Your task to perform on an android device: Open ESPN.com Image 0: 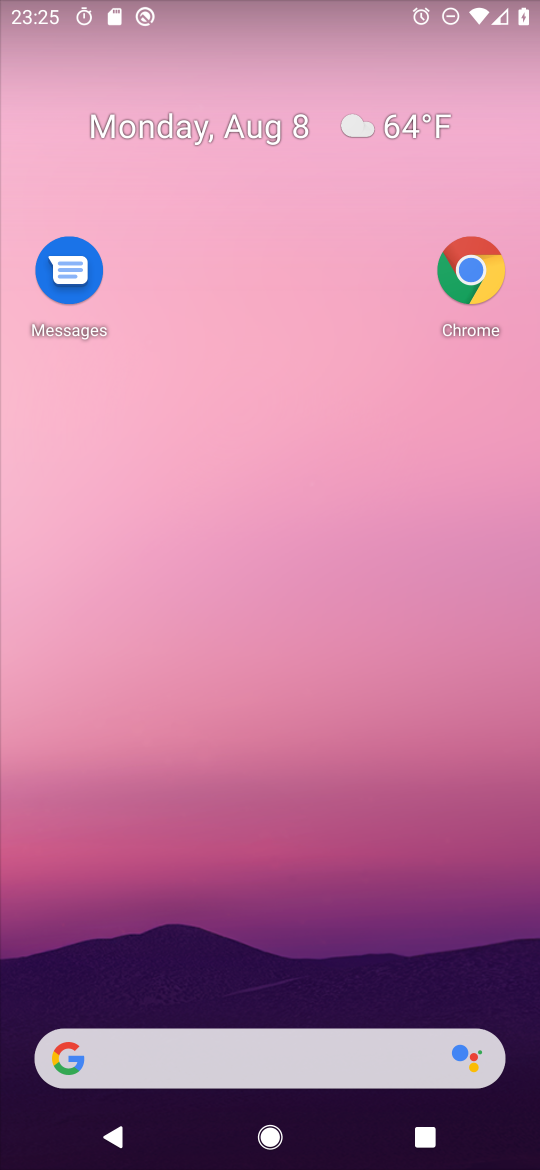
Step 0: click (482, 278)
Your task to perform on an android device: Open ESPN.com Image 1: 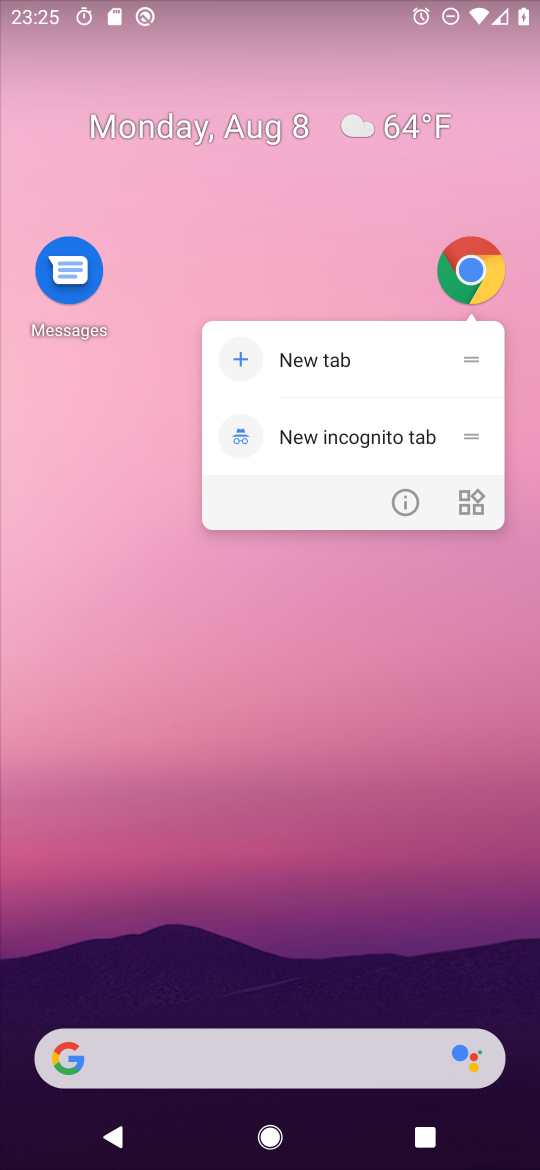
Step 1: click (397, 491)
Your task to perform on an android device: Open ESPN.com Image 2: 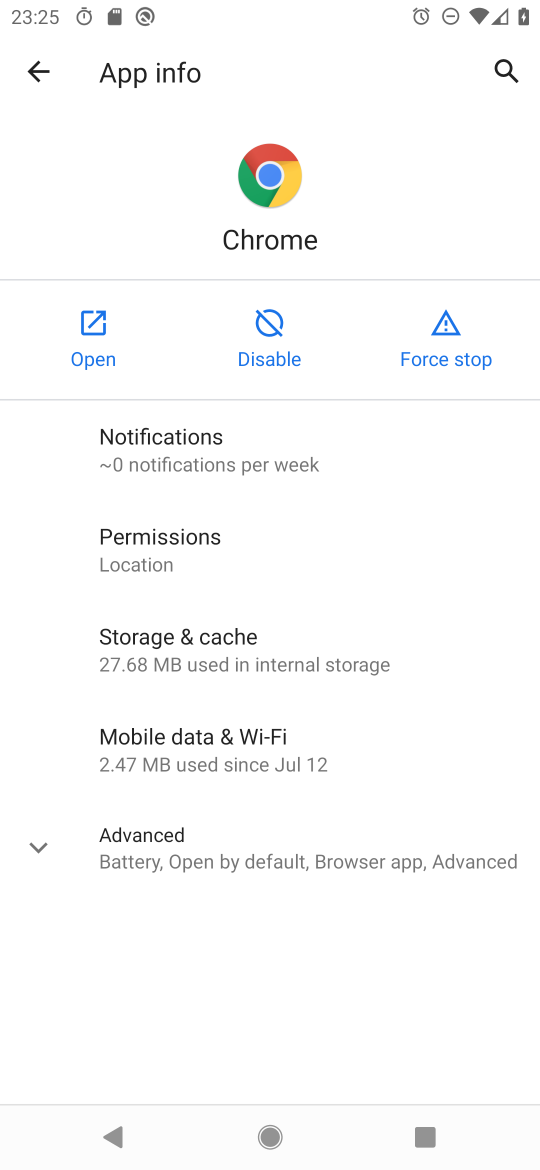
Step 2: click (92, 331)
Your task to perform on an android device: Open ESPN.com Image 3: 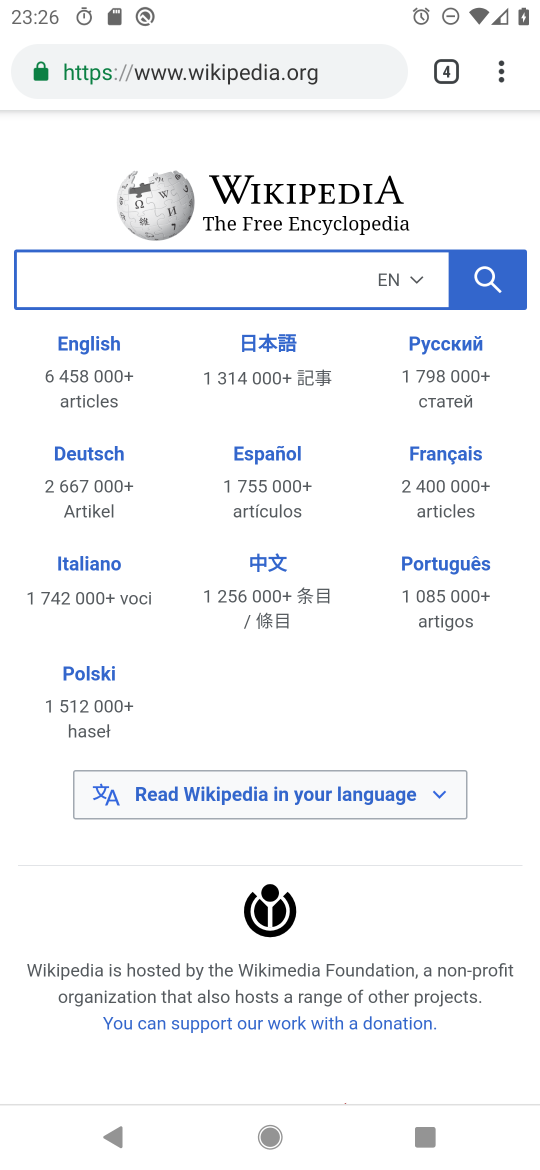
Step 3: click (201, 91)
Your task to perform on an android device: Open ESPN.com Image 4: 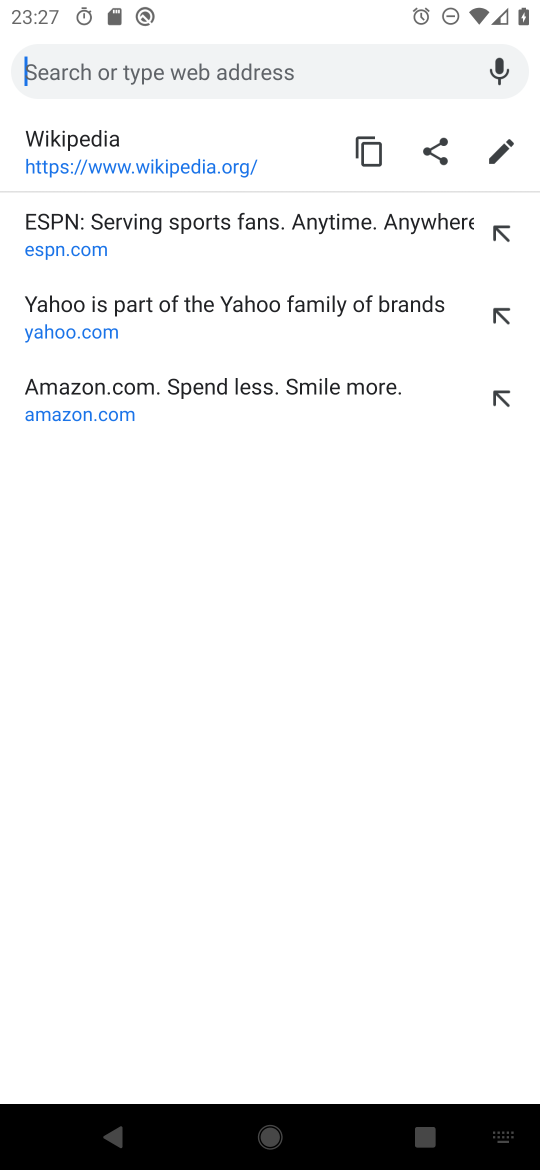
Step 4: click (66, 203)
Your task to perform on an android device: Open ESPN.com Image 5: 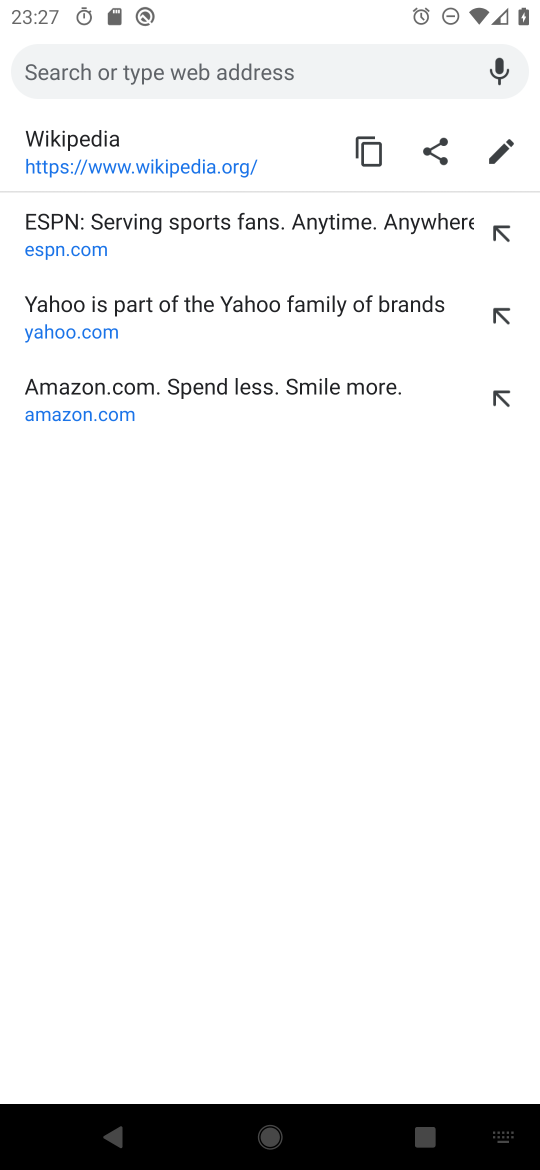
Step 5: click (78, 254)
Your task to perform on an android device: Open ESPN.com Image 6: 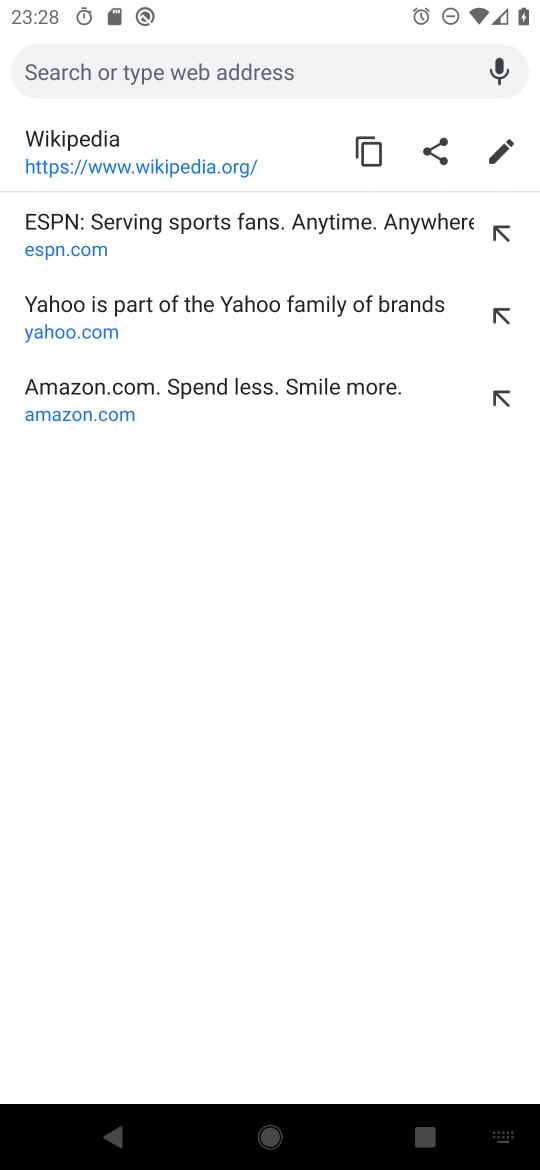
Step 6: click (91, 275)
Your task to perform on an android device: Open ESPN.com Image 7: 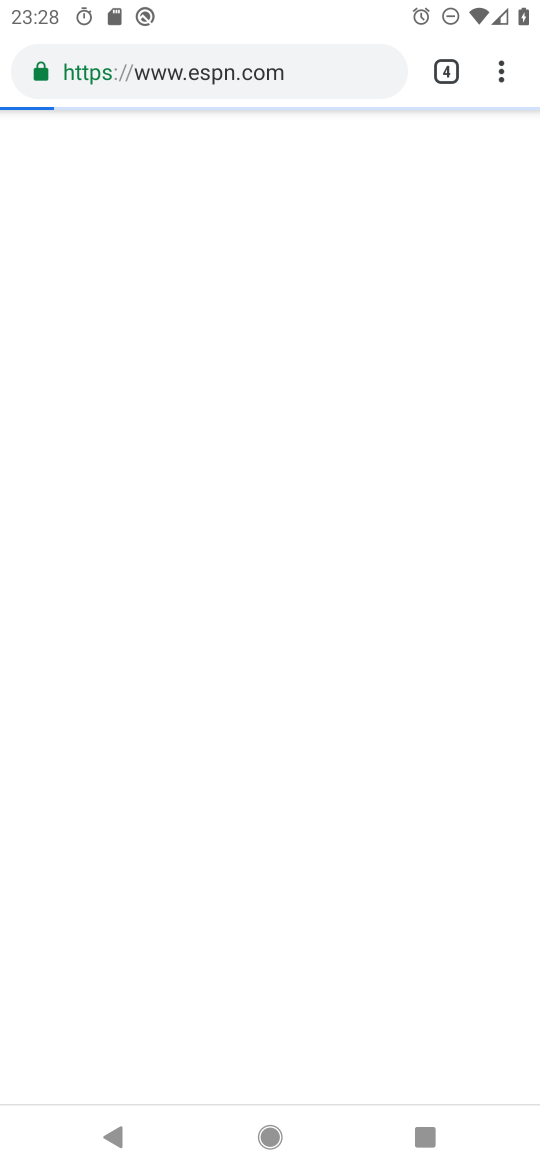
Step 7: task complete